Your task to perform on an android device: Is it going to rain today? Image 0: 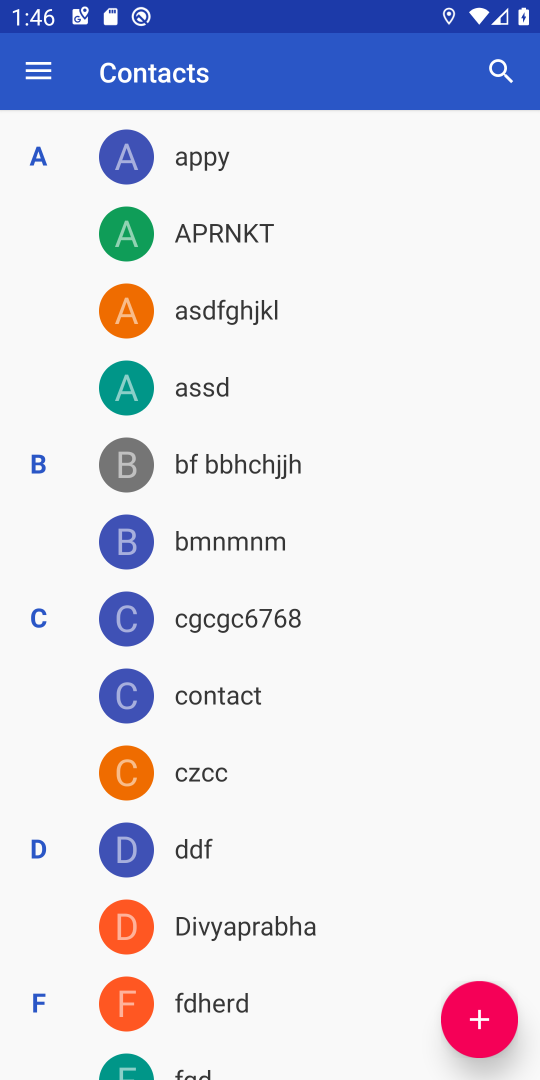
Step 0: press home button
Your task to perform on an android device: Is it going to rain today? Image 1: 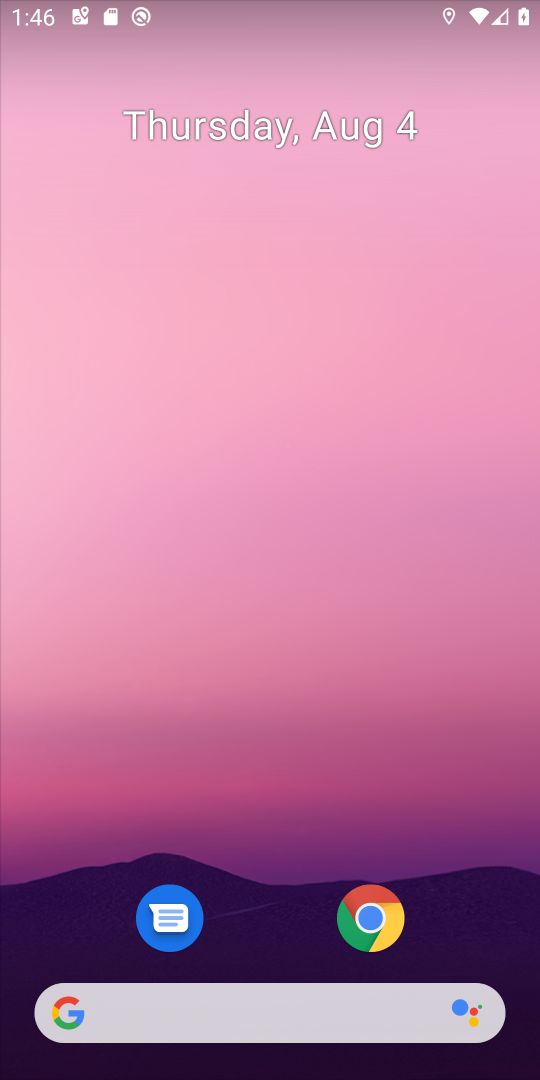
Step 1: drag from (273, 875) to (281, 409)
Your task to perform on an android device: Is it going to rain today? Image 2: 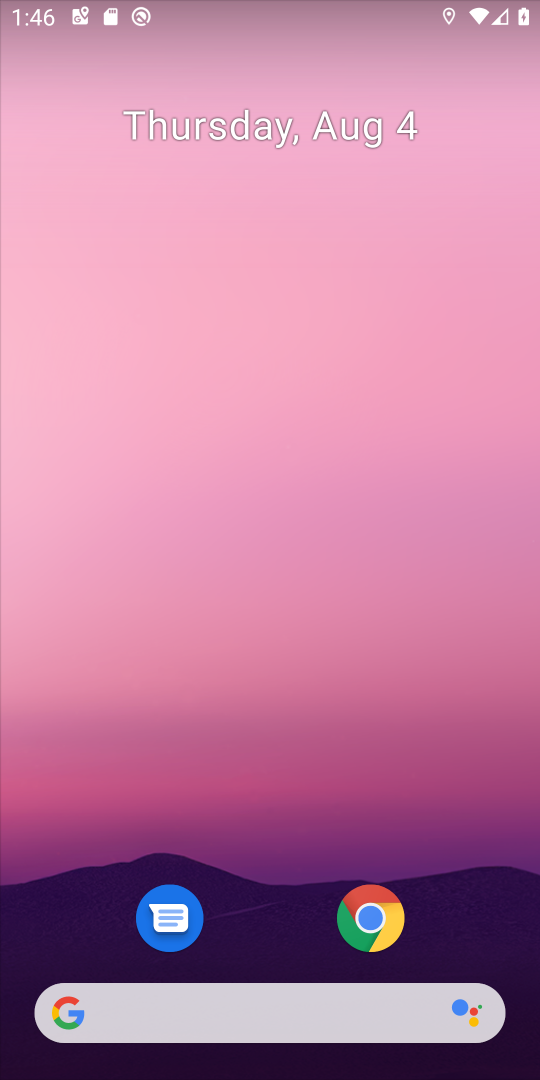
Step 2: drag from (300, 899) to (261, 283)
Your task to perform on an android device: Is it going to rain today? Image 3: 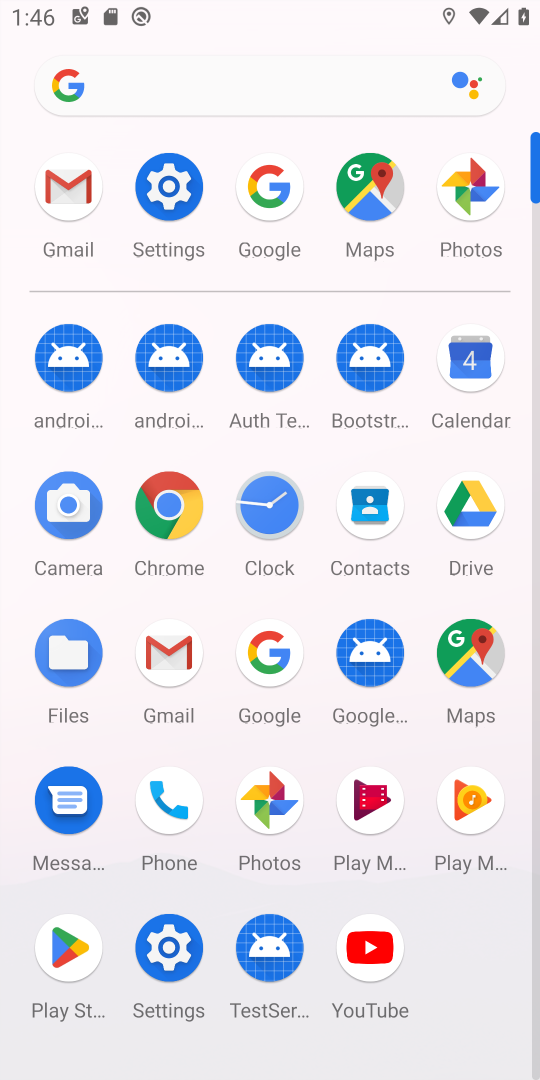
Step 3: click (276, 642)
Your task to perform on an android device: Is it going to rain today? Image 4: 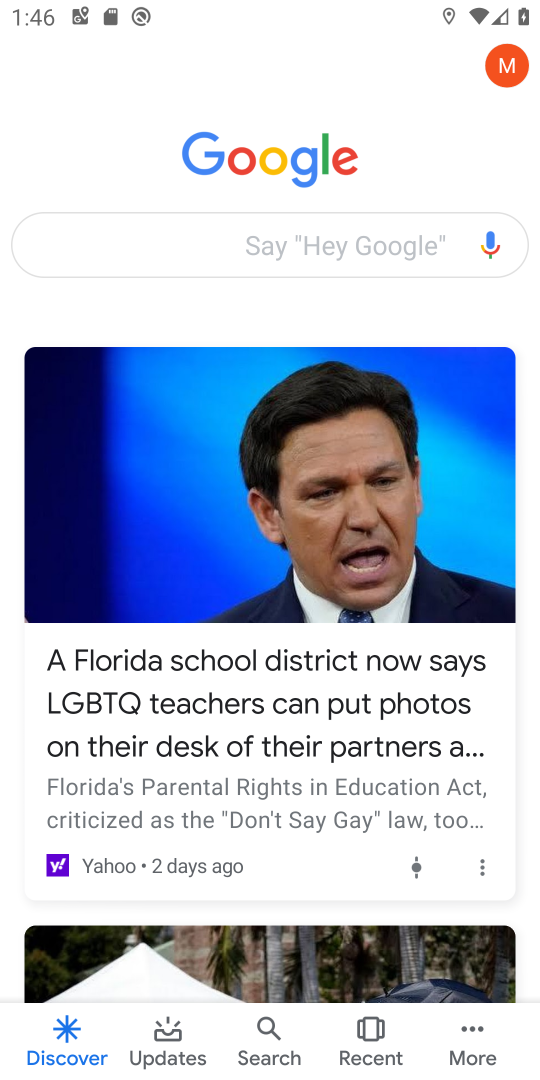
Step 4: click (203, 227)
Your task to perform on an android device: Is it going to rain today? Image 5: 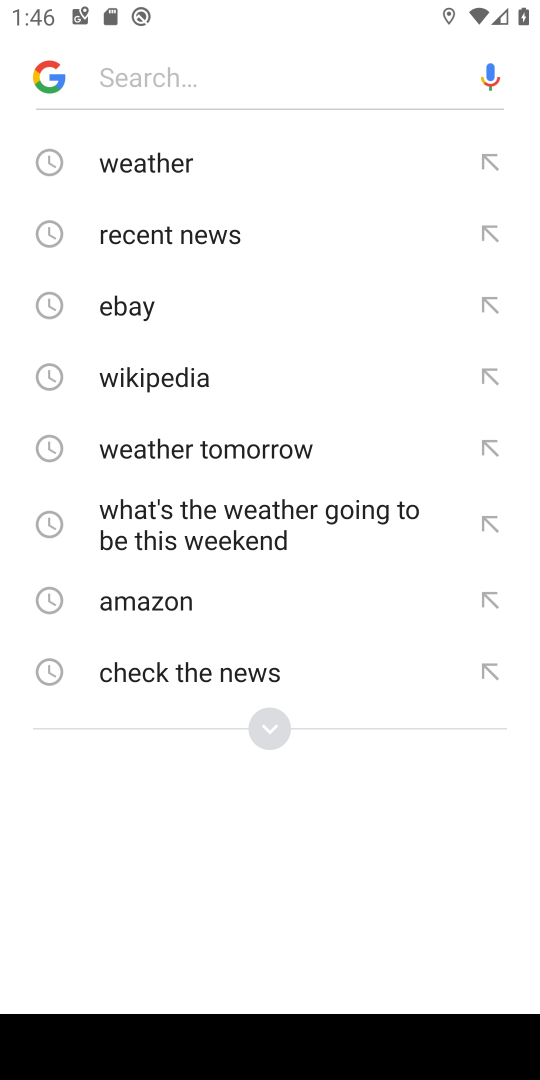
Step 5: click (183, 178)
Your task to perform on an android device: Is it going to rain today? Image 6: 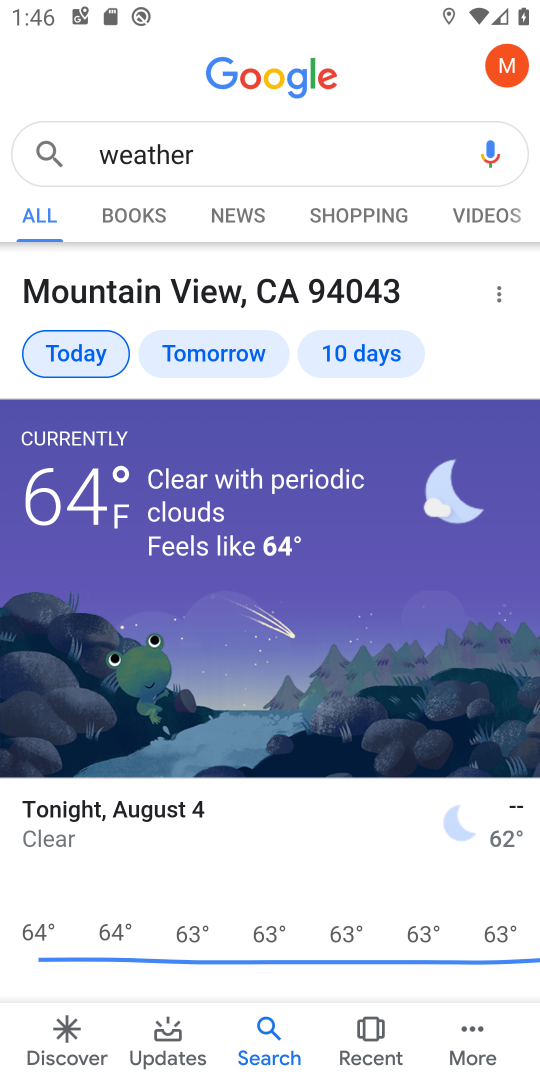
Step 6: click (227, 326)
Your task to perform on an android device: Is it going to rain today? Image 7: 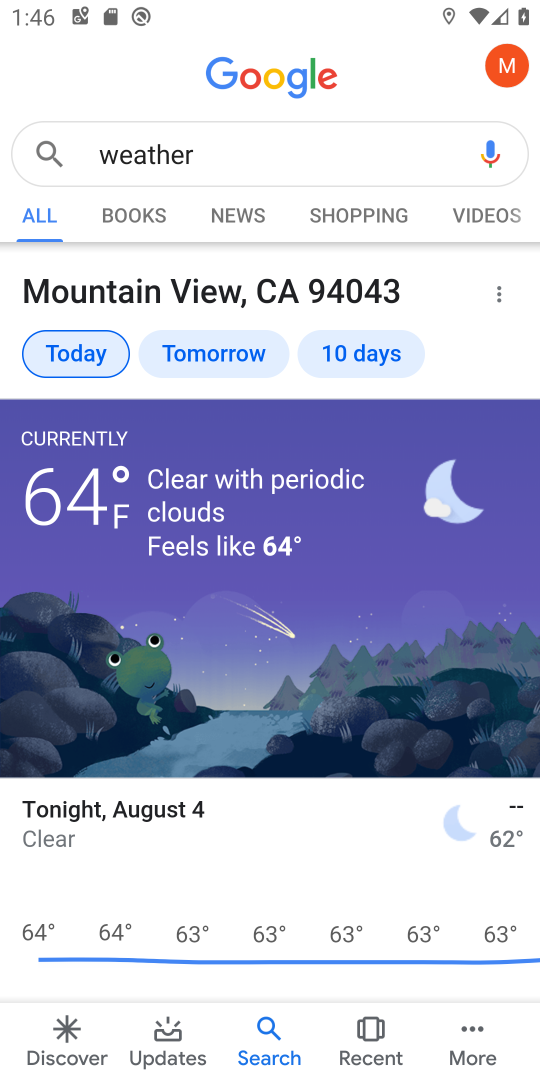
Step 7: click (96, 350)
Your task to perform on an android device: Is it going to rain today? Image 8: 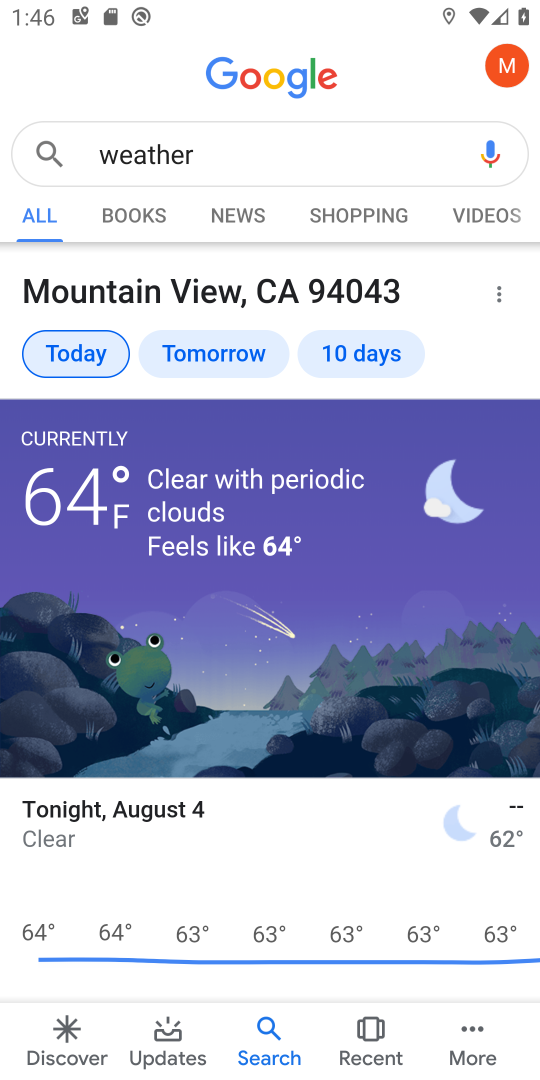
Step 8: task complete